Your task to perform on an android device: Open calendar and show me the second week of next month Image 0: 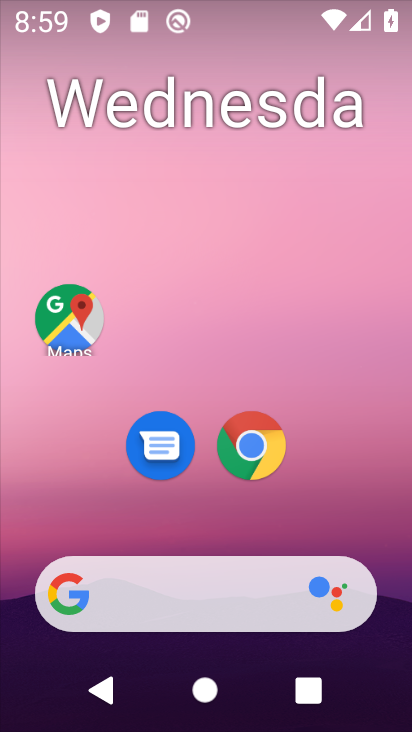
Step 0: drag from (182, 439) to (291, 45)
Your task to perform on an android device: Open calendar and show me the second week of next month Image 1: 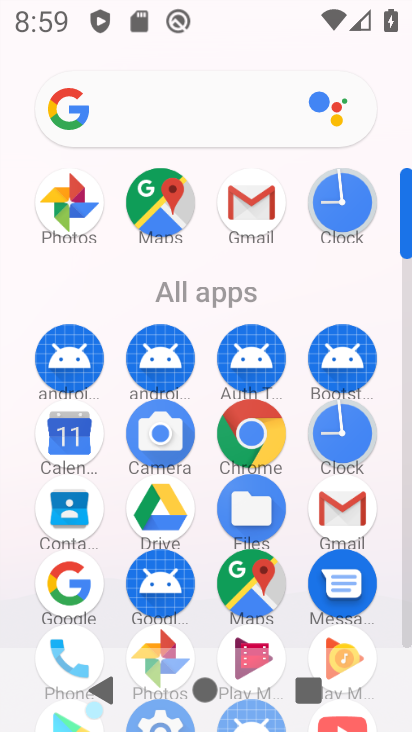
Step 1: click (54, 446)
Your task to perform on an android device: Open calendar and show me the second week of next month Image 2: 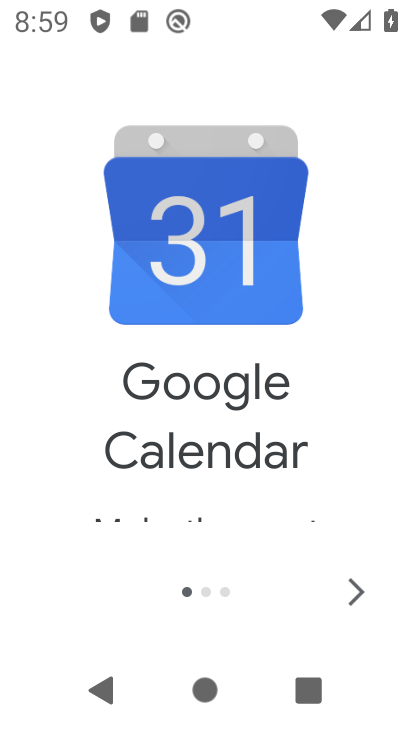
Step 2: click (382, 574)
Your task to perform on an android device: Open calendar and show me the second week of next month Image 3: 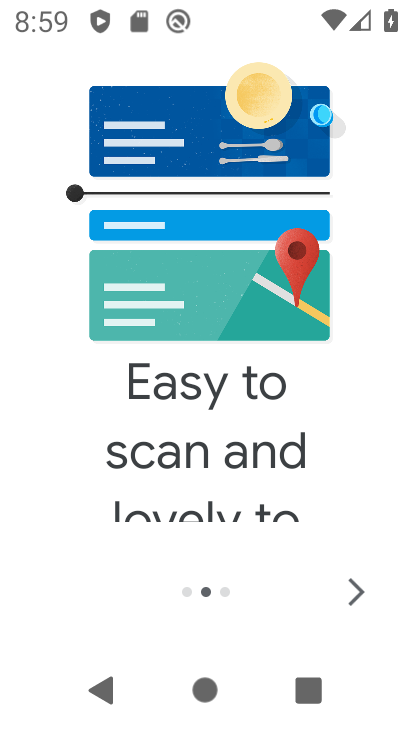
Step 3: click (364, 583)
Your task to perform on an android device: Open calendar and show me the second week of next month Image 4: 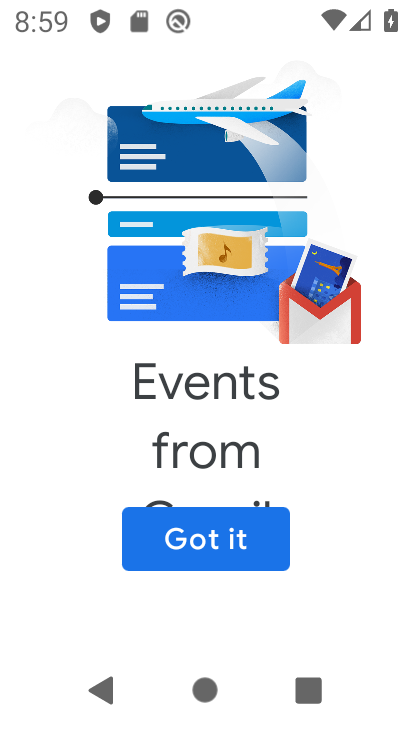
Step 4: click (244, 549)
Your task to perform on an android device: Open calendar and show me the second week of next month Image 5: 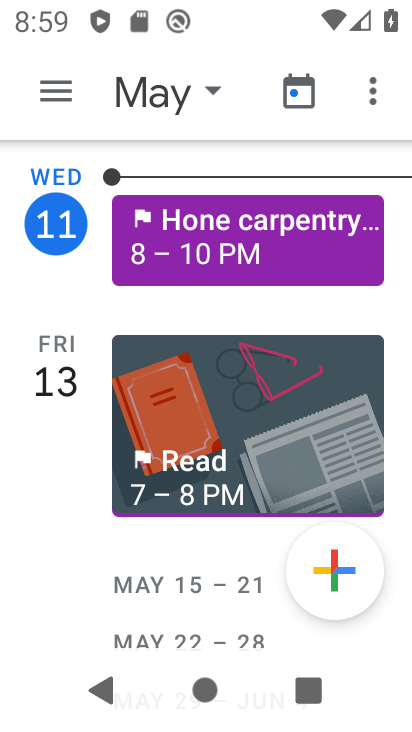
Step 5: click (210, 104)
Your task to perform on an android device: Open calendar and show me the second week of next month Image 6: 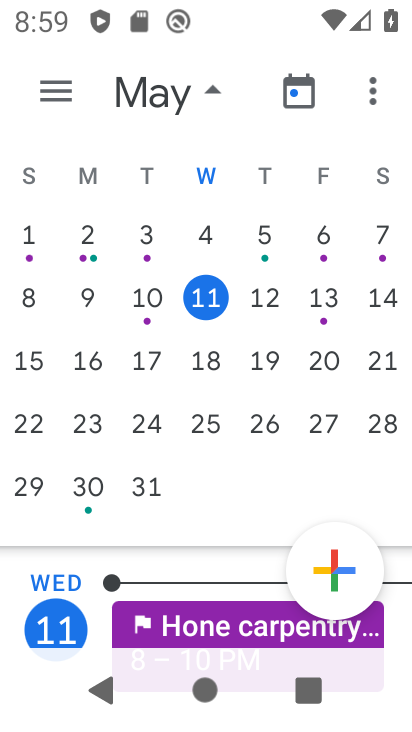
Step 6: drag from (376, 313) to (21, 325)
Your task to perform on an android device: Open calendar and show me the second week of next month Image 7: 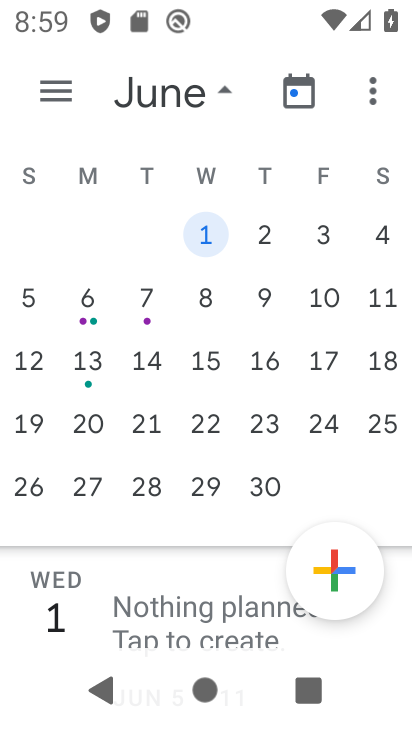
Step 7: click (80, 295)
Your task to perform on an android device: Open calendar and show me the second week of next month Image 8: 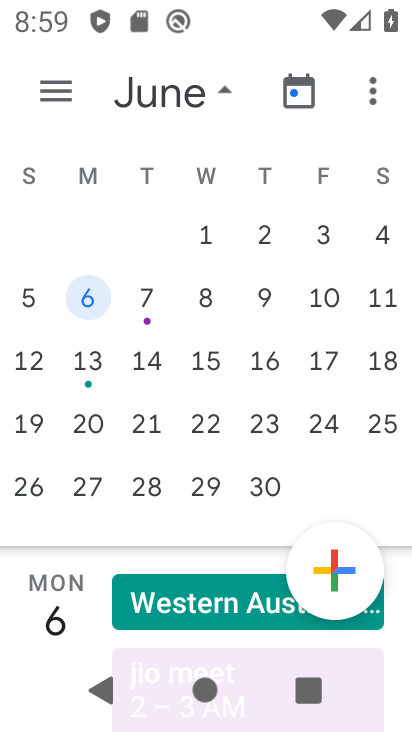
Step 8: task complete